Your task to perform on an android device: Set the phone to "Do not disturb". Image 0: 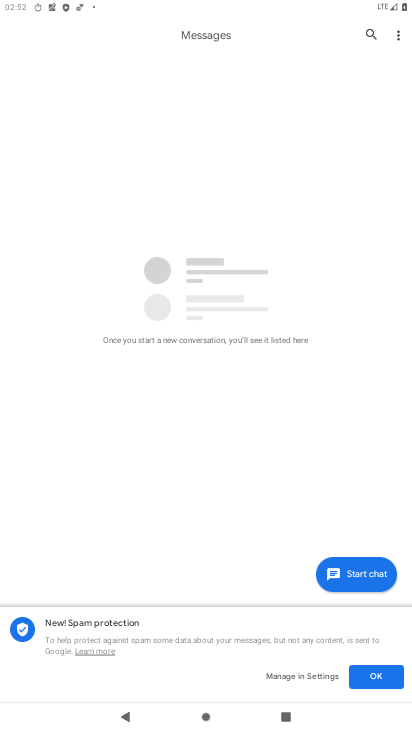
Step 0: press home button
Your task to perform on an android device: Set the phone to "Do not disturb". Image 1: 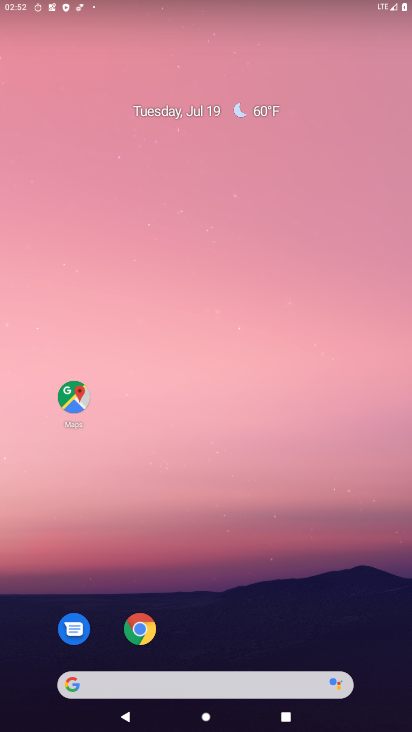
Step 1: drag from (216, 617) to (193, 190)
Your task to perform on an android device: Set the phone to "Do not disturb". Image 2: 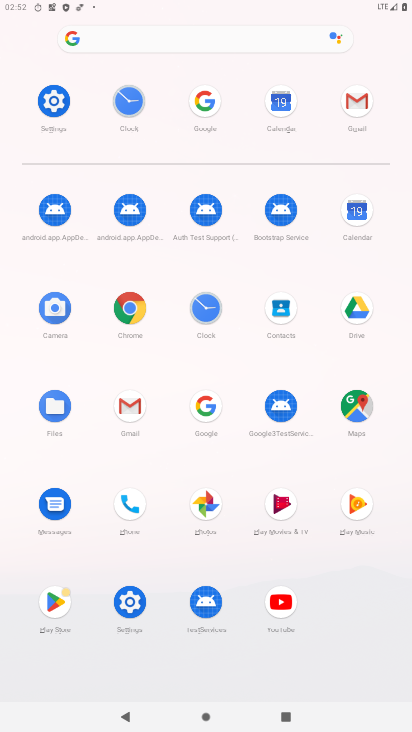
Step 2: click (60, 105)
Your task to perform on an android device: Set the phone to "Do not disturb". Image 3: 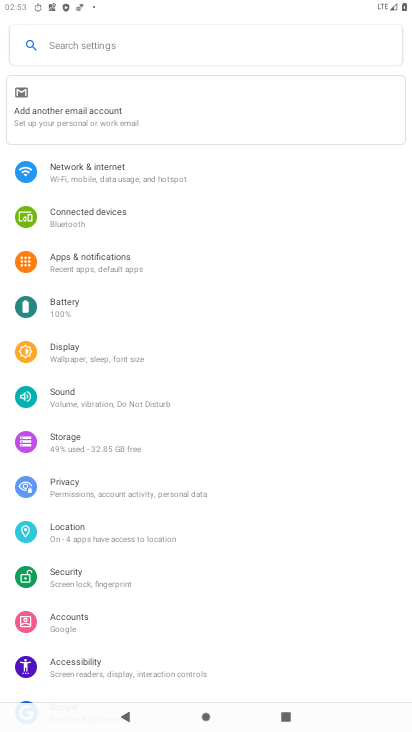
Step 3: click (97, 405)
Your task to perform on an android device: Set the phone to "Do not disturb". Image 4: 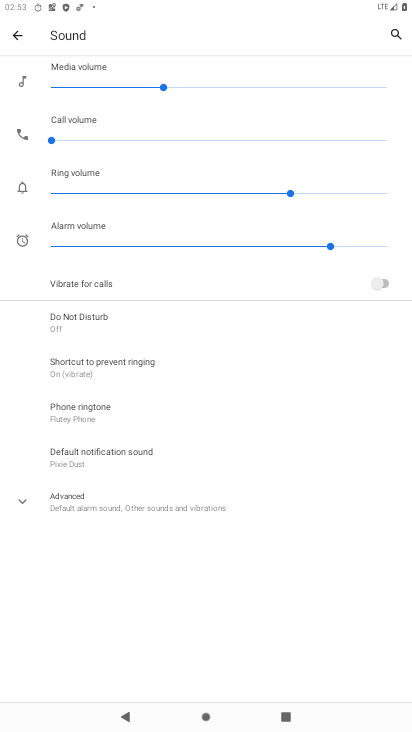
Step 4: click (121, 324)
Your task to perform on an android device: Set the phone to "Do not disturb". Image 5: 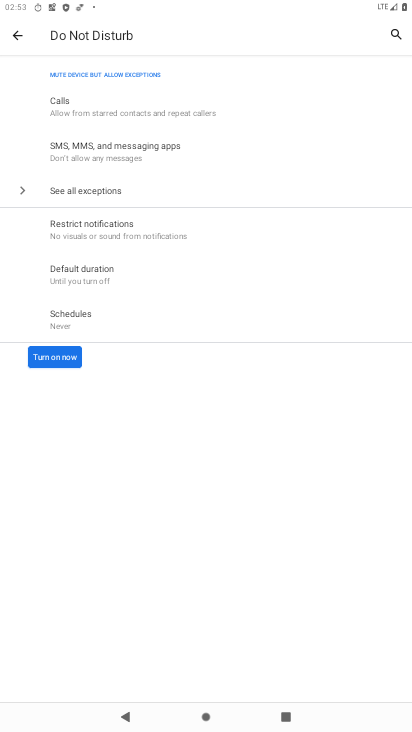
Step 5: click (62, 362)
Your task to perform on an android device: Set the phone to "Do not disturb". Image 6: 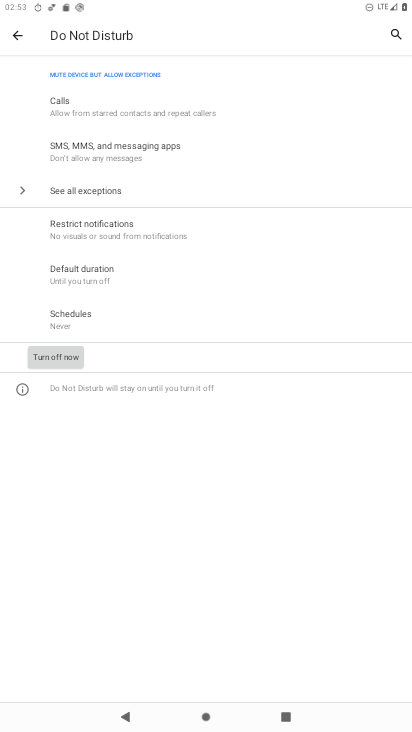
Step 6: task complete